Your task to perform on an android device: Clear the shopping cart on walmart. Add bose quietcomfort 35 to the cart on walmart Image 0: 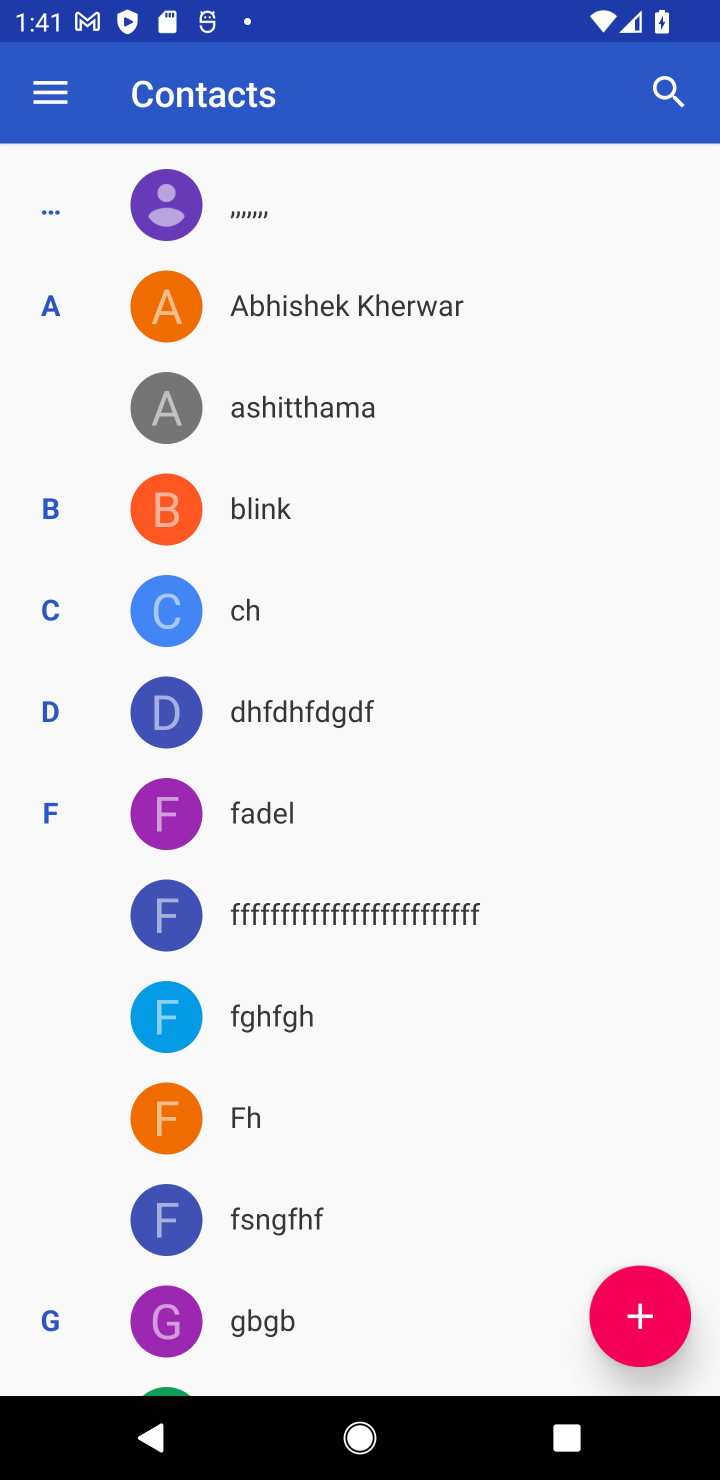
Step 0: press home button
Your task to perform on an android device: Clear the shopping cart on walmart. Add bose quietcomfort 35 to the cart on walmart Image 1: 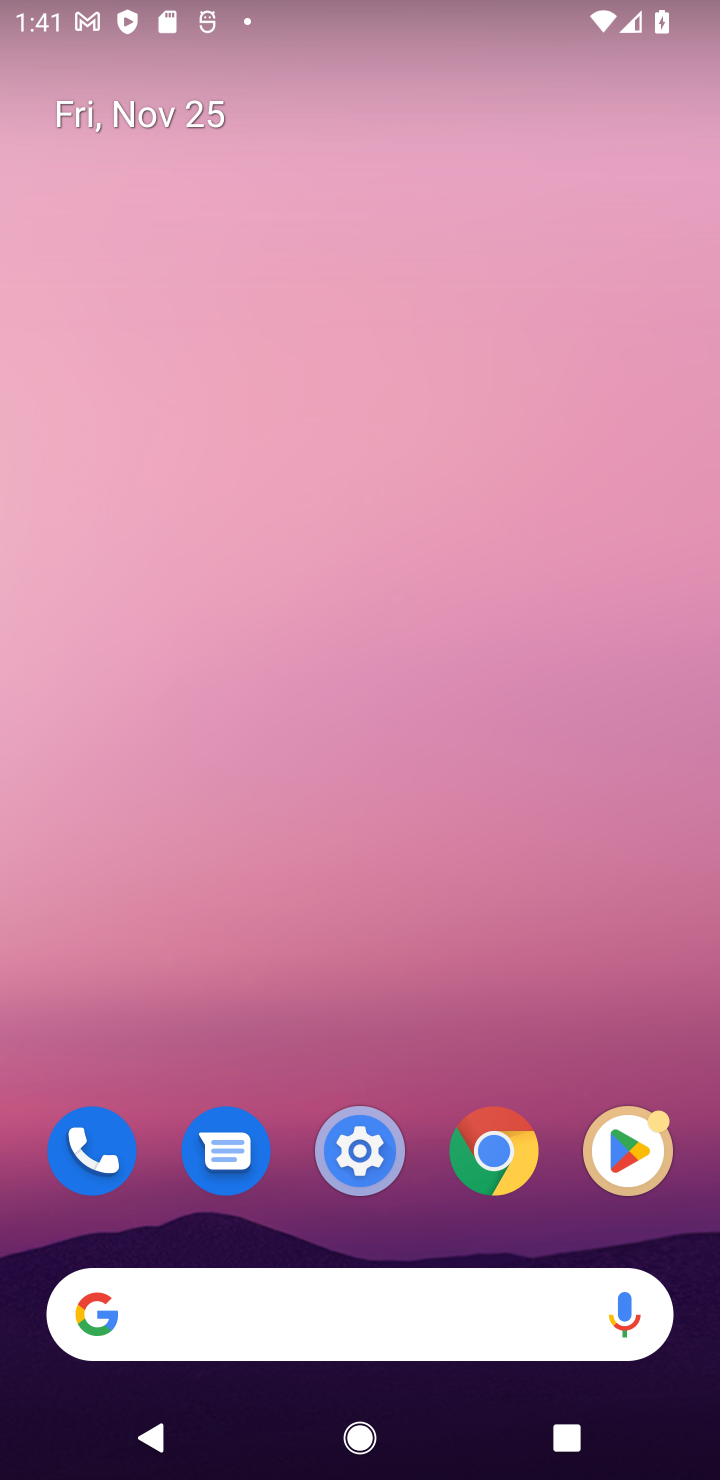
Step 1: click (342, 1334)
Your task to perform on an android device: Clear the shopping cart on walmart. Add bose quietcomfort 35 to the cart on walmart Image 2: 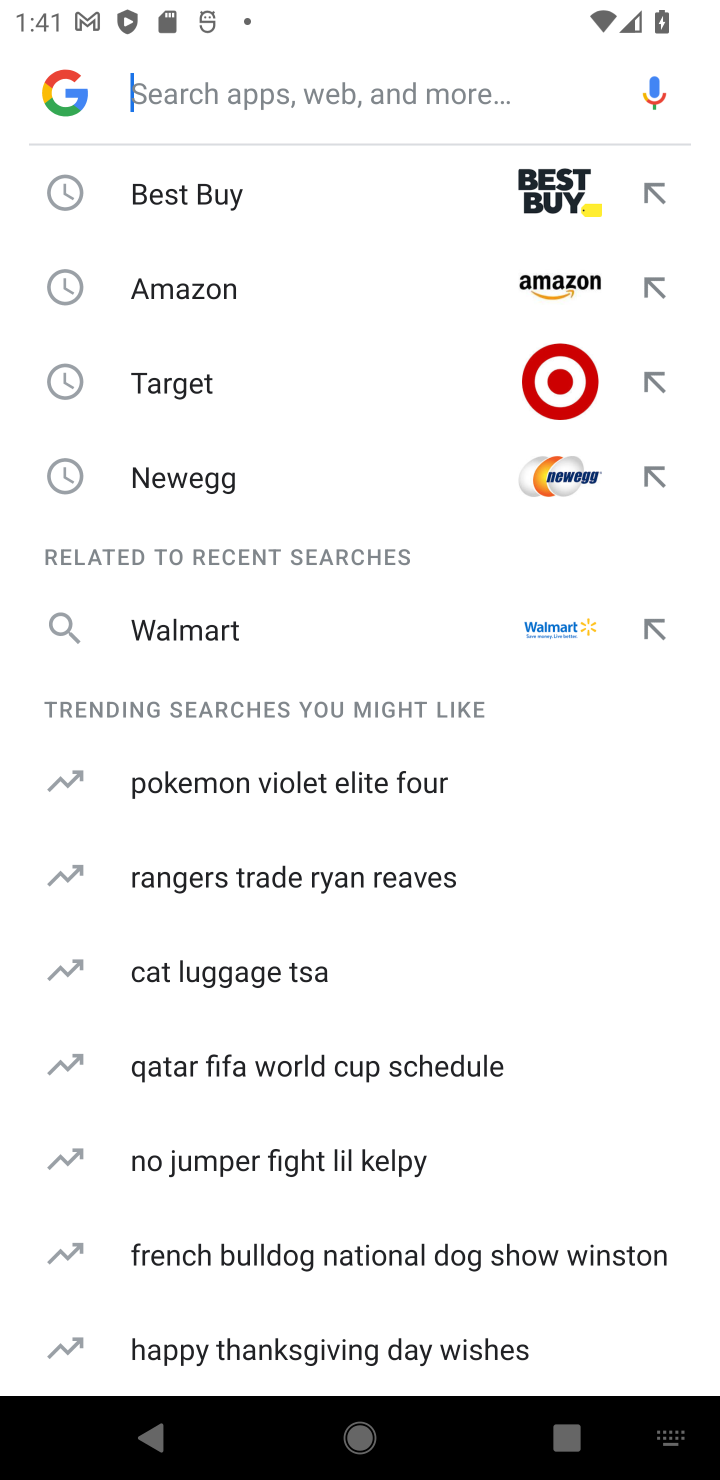
Step 2: click (173, 637)
Your task to perform on an android device: Clear the shopping cart on walmart. Add bose quietcomfort 35 to the cart on walmart Image 3: 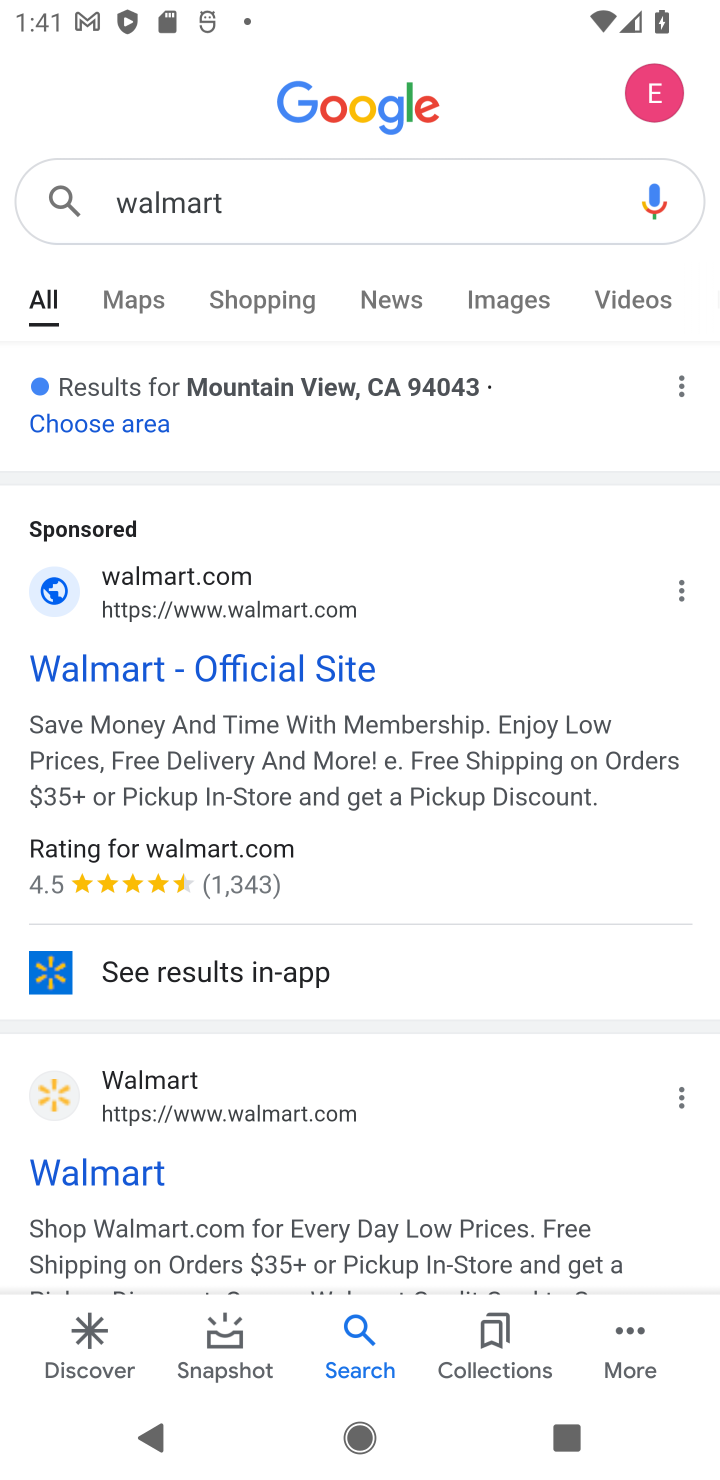
Step 3: click (179, 646)
Your task to perform on an android device: Clear the shopping cart on walmart. Add bose quietcomfort 35 to the cart on walmart Image 4: 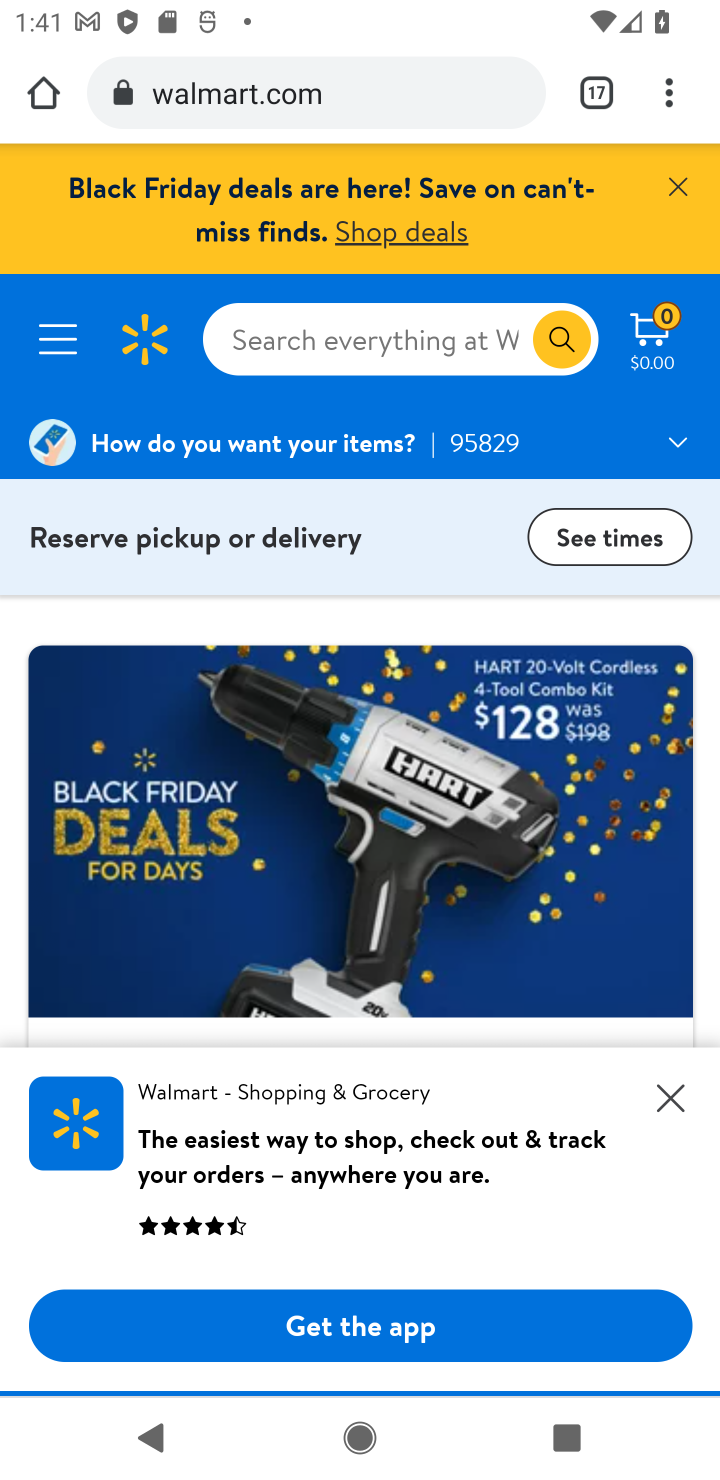
Step 4: click (309, 312)
Your task to perform on an android device: Clear the shopping cart on walmart. Add bose quietcomfort 35 to the cart on walmart Image 5: 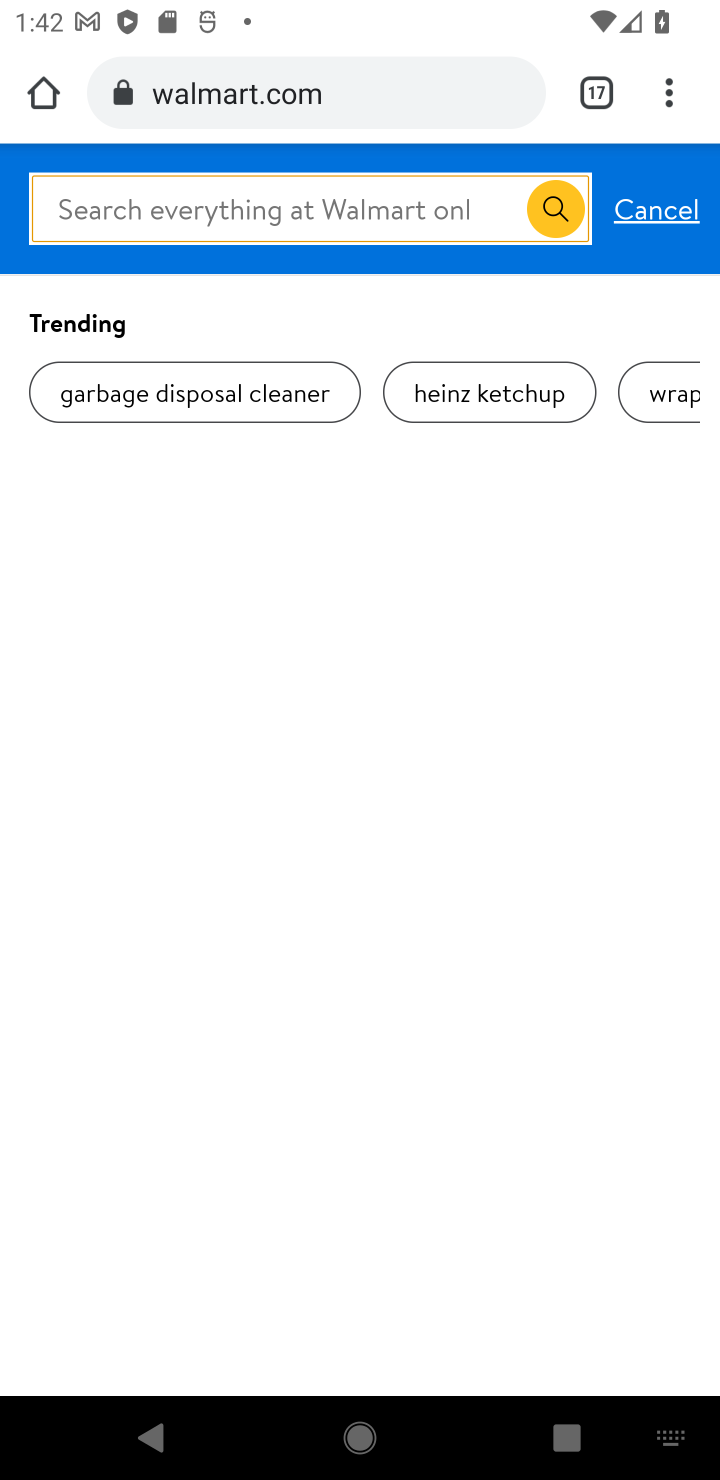
Step 5: type "bose quientcomfort"
Your task to perform on an android device: Clear the shopping cart on walmart. Add bose quietcomfort 35 to the cart on walmart Image 6: 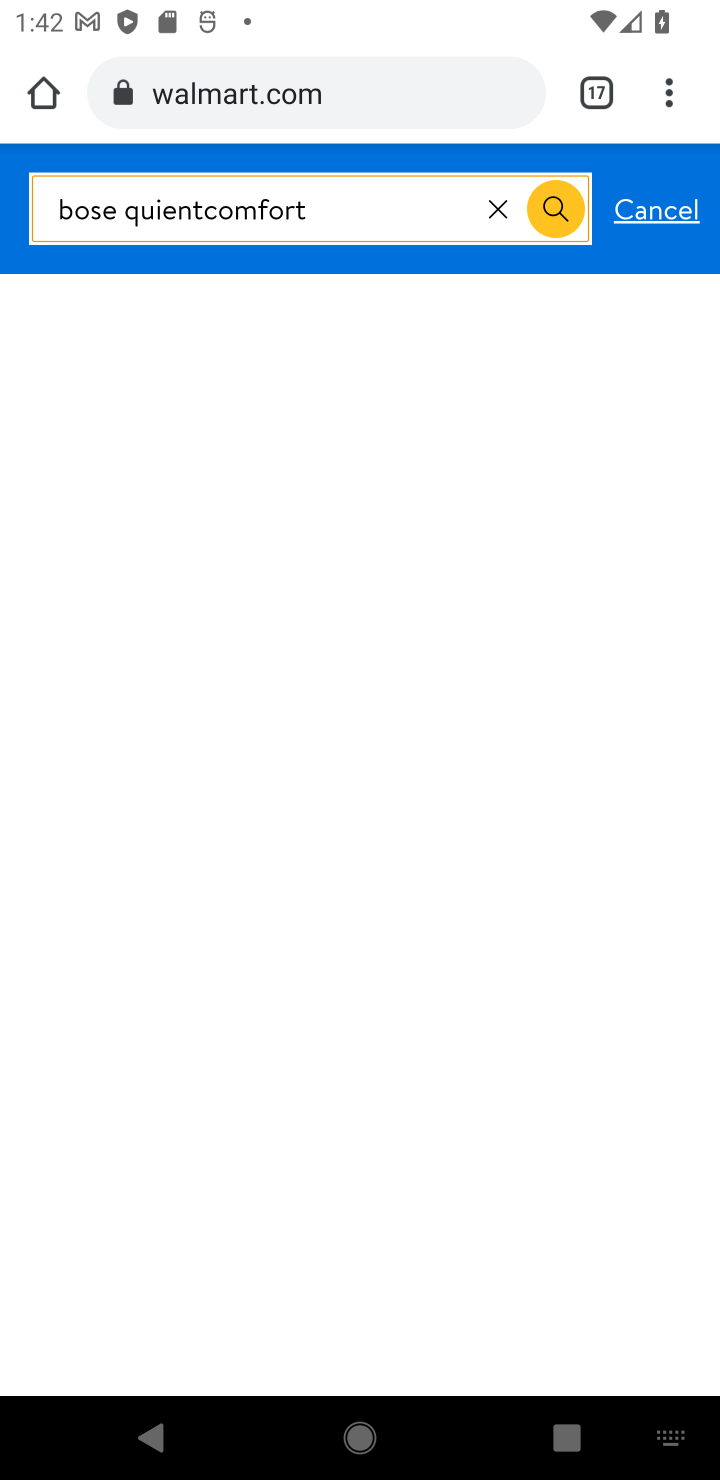
Step 6: click (550, 232)
Your task to perform on an android device: Clear the shopping cart on walmart. Add bose quietcomfort 35 to the cart on walmart Image 7: 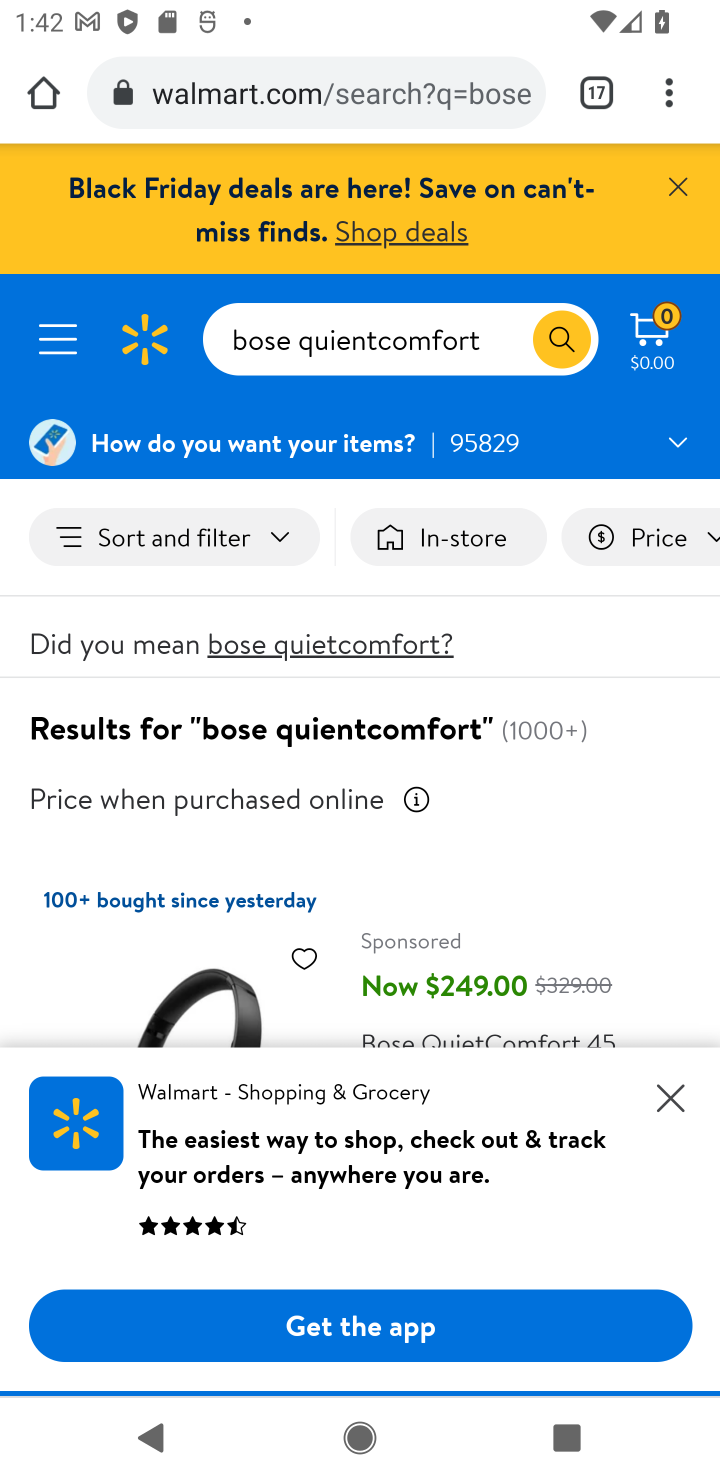
Step 7: click (693, 1090)
Your task to perform on an android device: Clear the shopping cart on walmart. Add bose quietcomfort 35 to the cart on walmart Image 8: 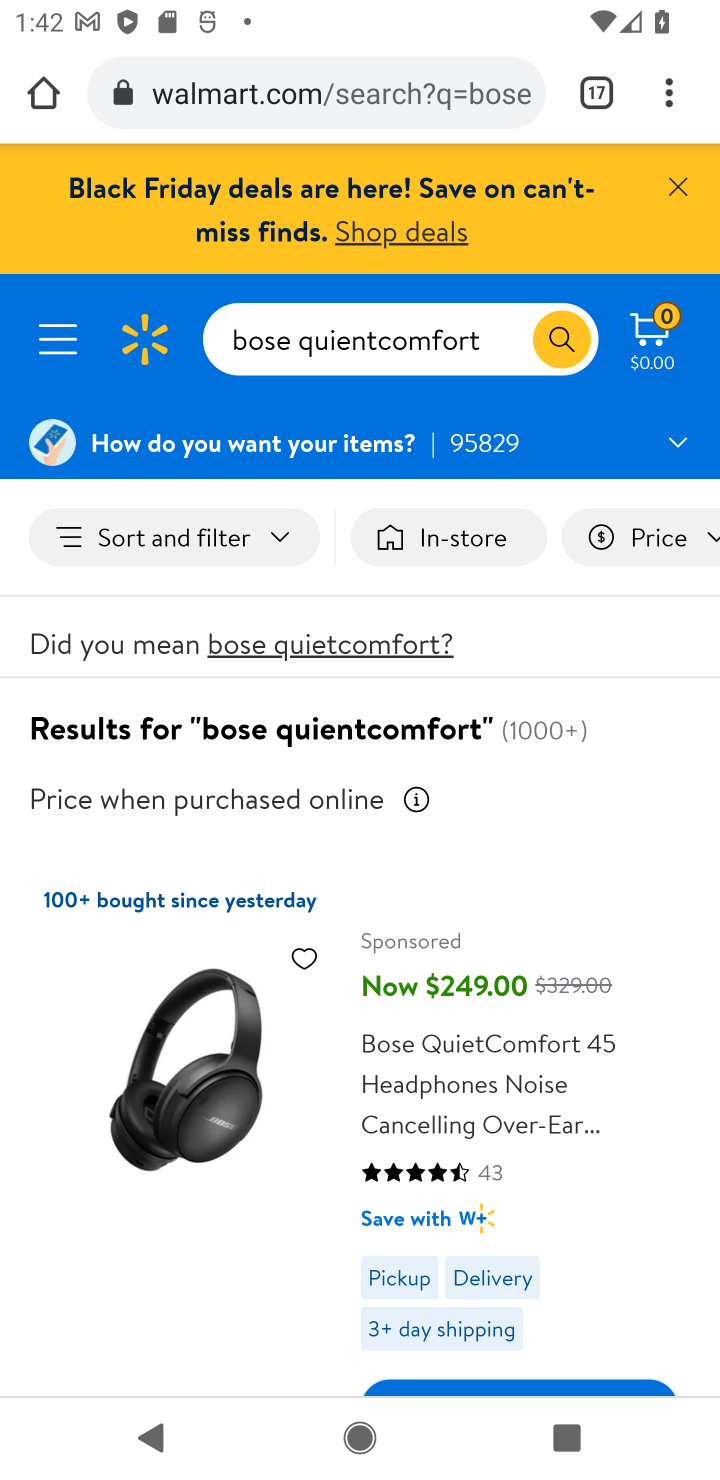
Step 8: click (556, 1380)
Your task to perform on an android device: Clear the shopping cart on walmart. Add bose quietcomfort 35 to the cart on walmart Image 9: 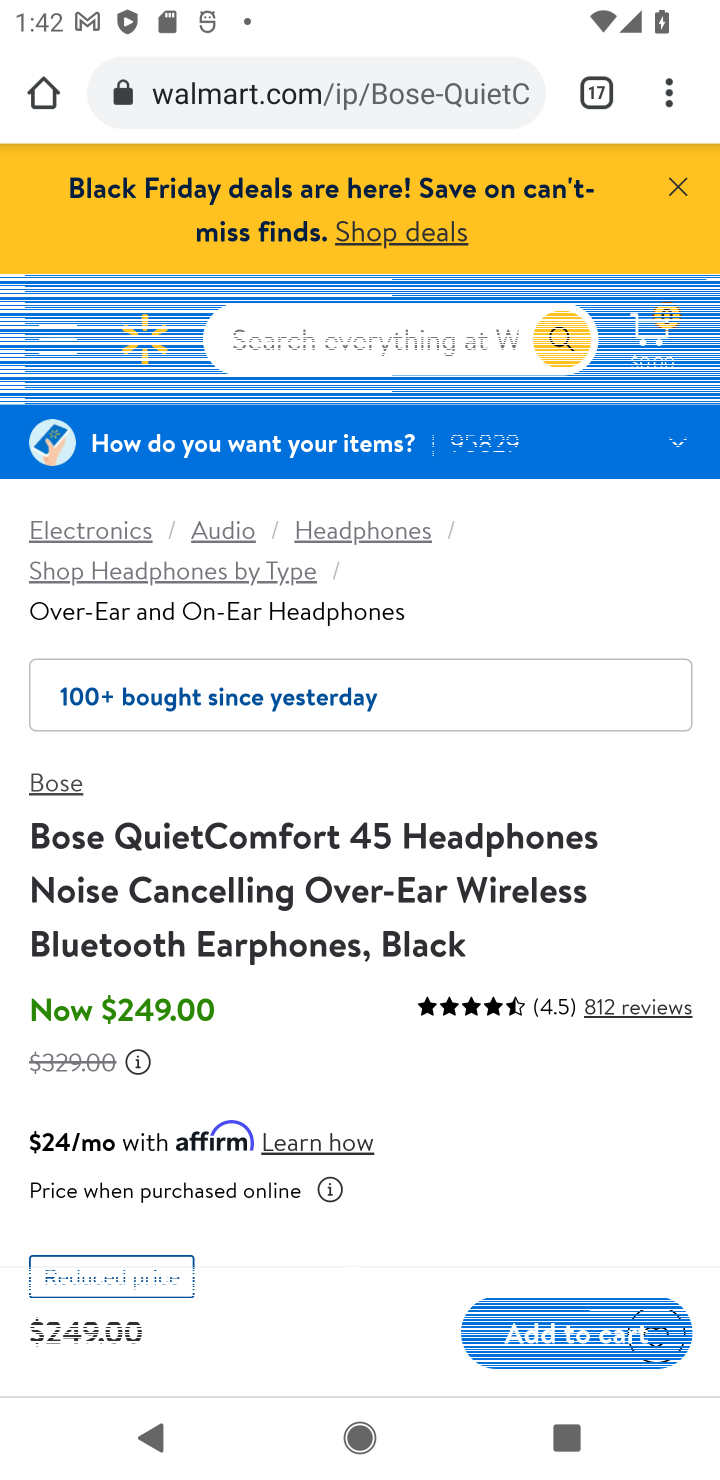
Step 9: click (556, 1331)
Your task to perform on an android device: Clear the shopping cart on walmart. Add bose quietcomfort 35 to the cart on walmart Image 10: 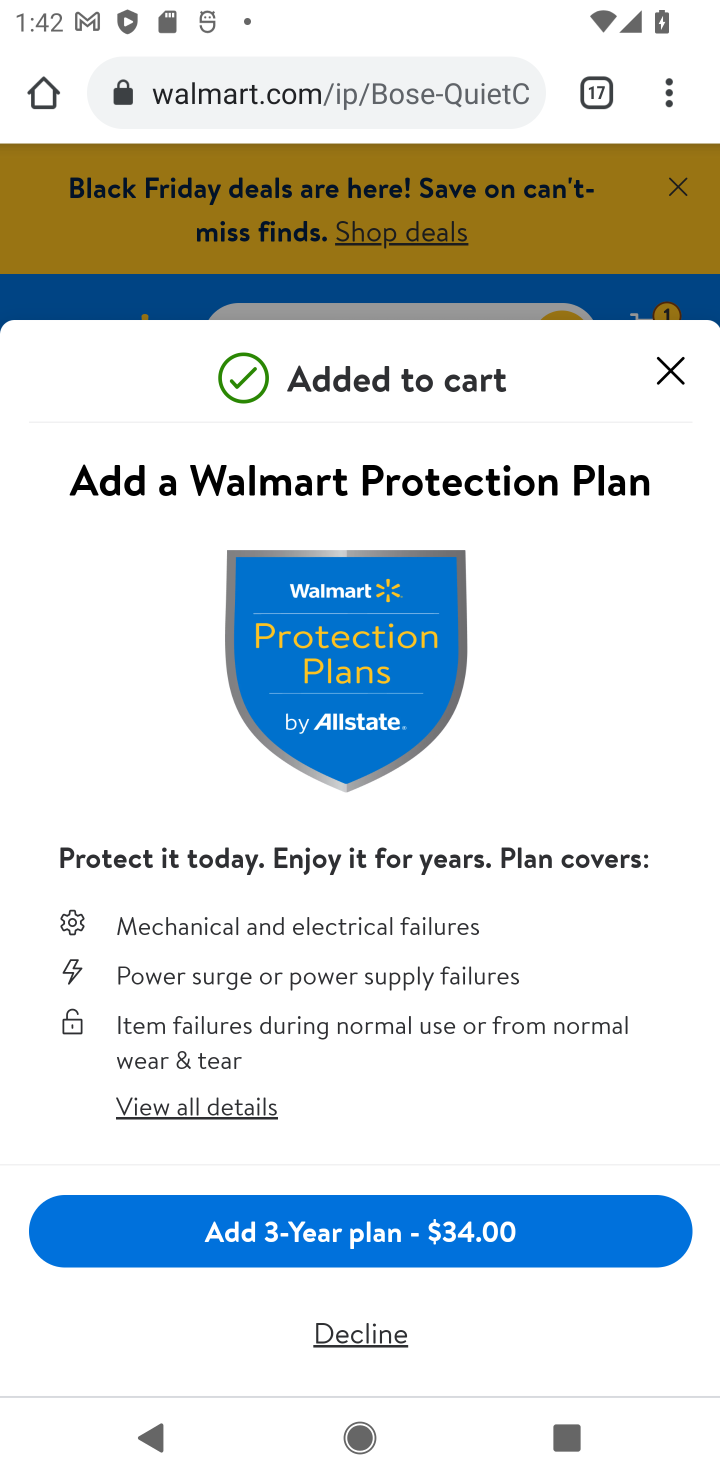
Step 10: task complete